Your task to perform on an android device: Open network settings Image 0: 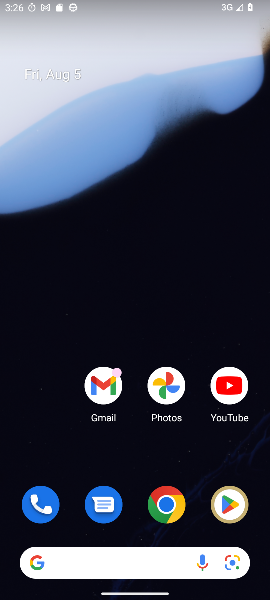
Step 0: drag from (24, 572) to (131, 46)
Your task to perform on an android device: Open network settings Image 1: 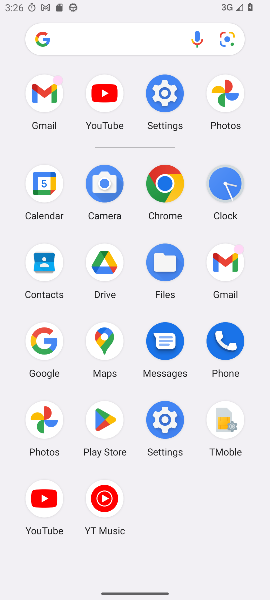
Step 1: click (170, 424)
Your task to perform on an android device: Open network settings Image 2: 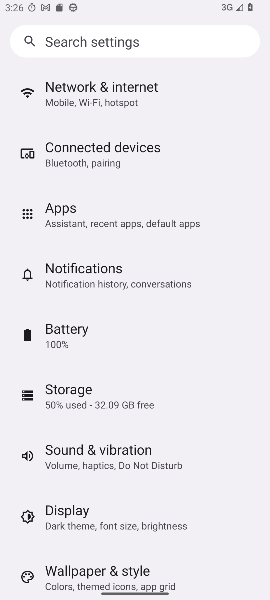
Step 2: click (76, 92)
Your task to perform on an android device: Open network settings Image 3: 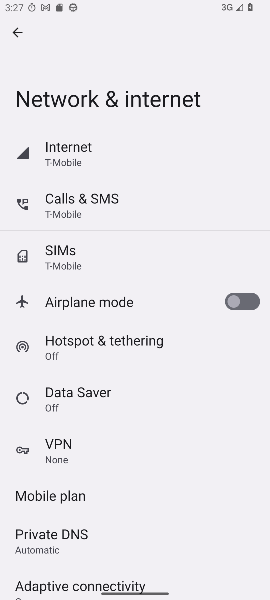
Step 3: task complete